Your task to perform on an android device: turn smart compose on in the gmail app Image 0: 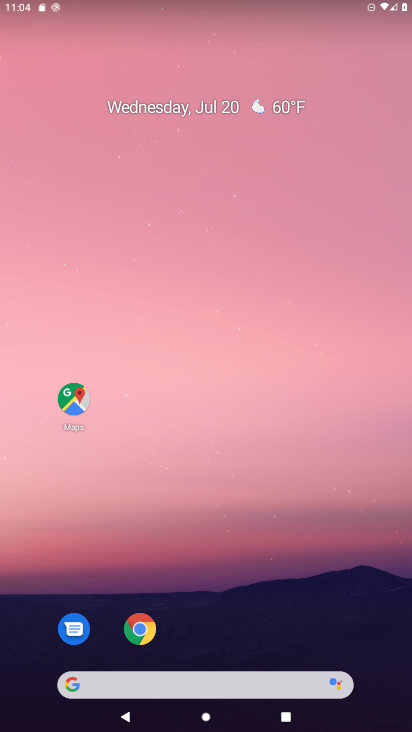
Step 0: drag from (211, 540) to (229, 6)
Your task to perform on an android device: turn smart compose on in the gmail app Image 1: 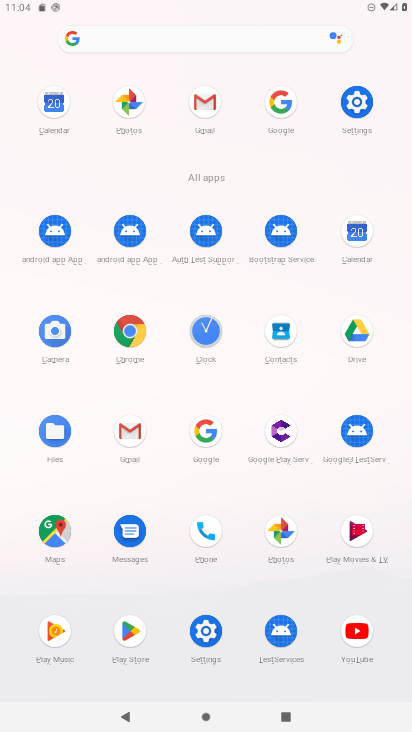
Step 1: click (221, 103)
Your task to perform on an android device: turn smart compose on in the gmail app Image 2: 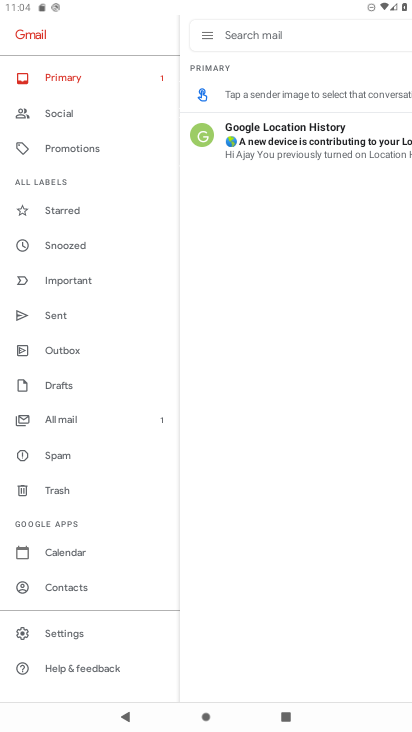
Step 2: click (65, 629)
Your task to perform on an android device: turn smart compose on in the gmail app Image 3: 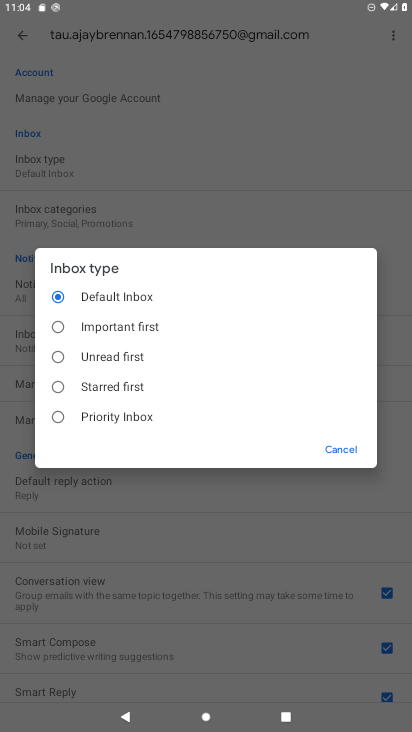
Step 3: click (125, 502)
Your task to perform on an android device: turn smart compose on in the gmail app Image 4: 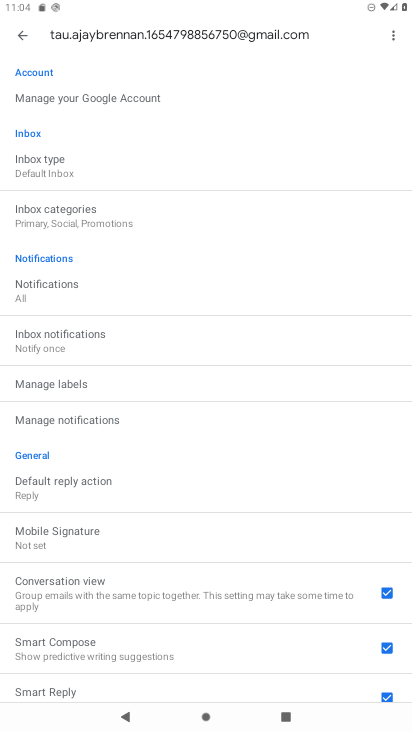
Step 4: task complete